Your task to perform on an android device: set the stopwatch Image 0: 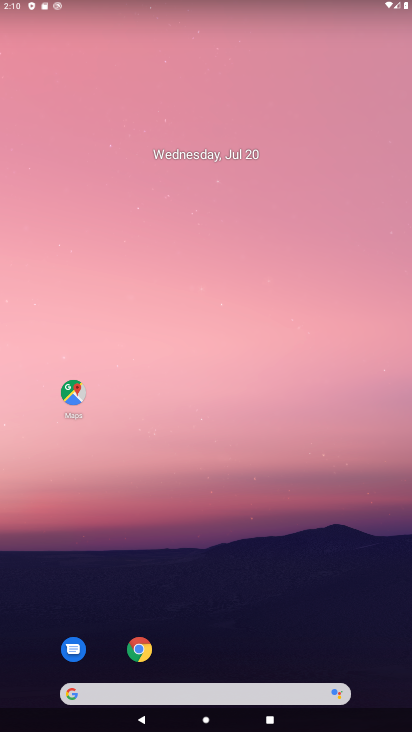
Step 0: drag from (260, 545) to (225, 189)
Your task to perform on an android device: set the stopwatch Image 1: 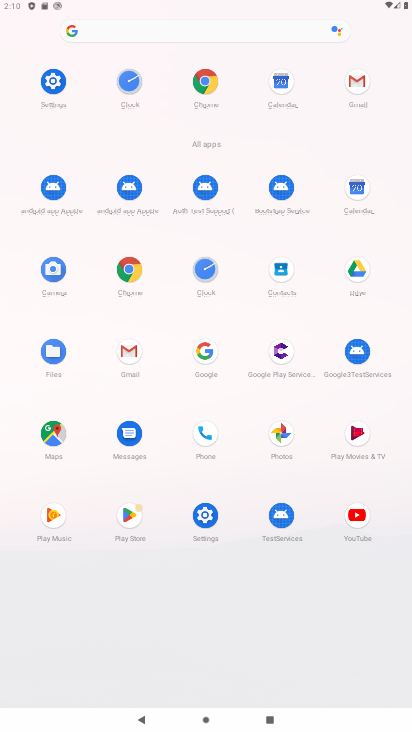
Step 1: click (205, 273)
Your task to perform on an android device: set the stopwatch Image 2: 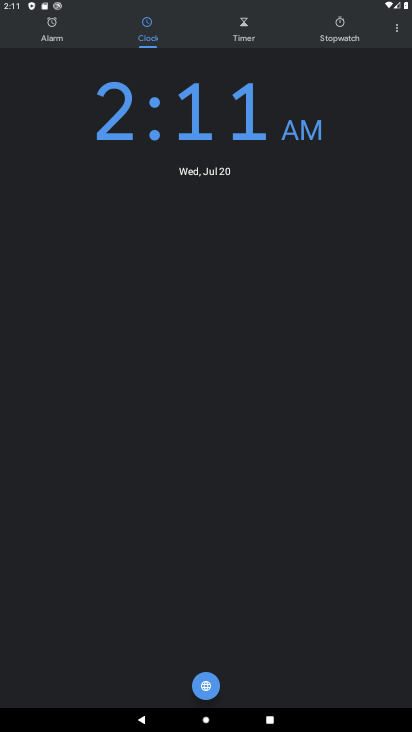
Step 2: click (344, 21)
Your task to perform on an android device: set the stopwatch Image 3: 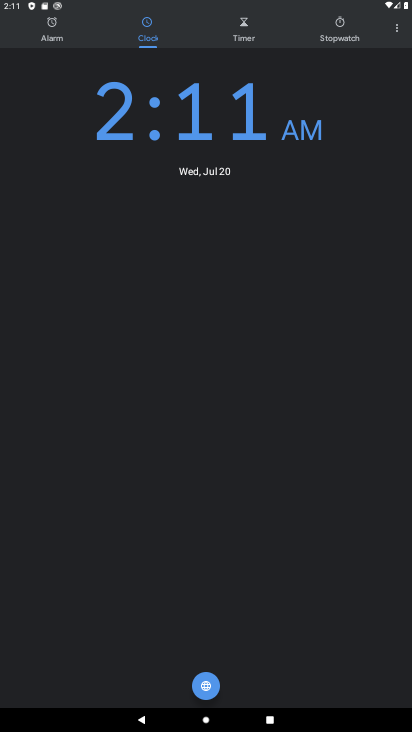
Step 3: click (342, 22)
Your task to perform on an android device: set the stopwatch Image 4: 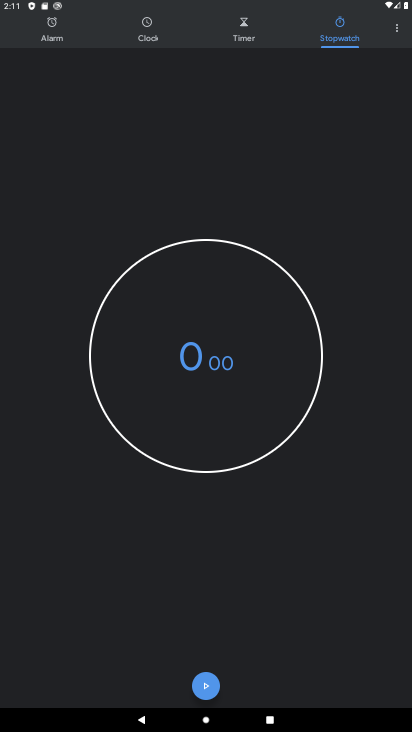
Step 4: click (219, 338)
Your task to perform on an android device: set the stopwatch Image 5: 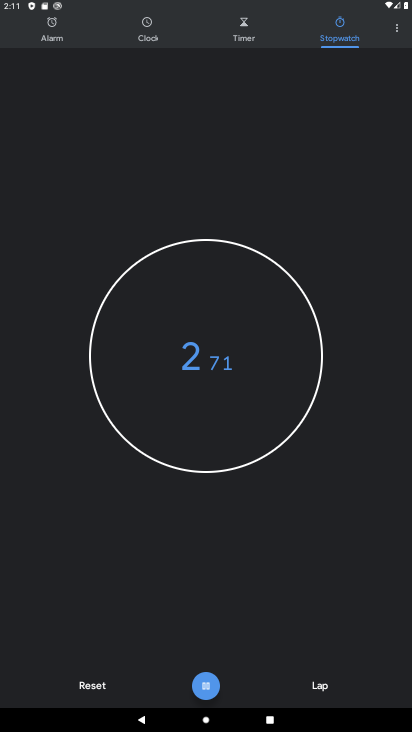
Step 5: click (186, 347)
Your task to perform on an android device: set the stopwatch Image 6: 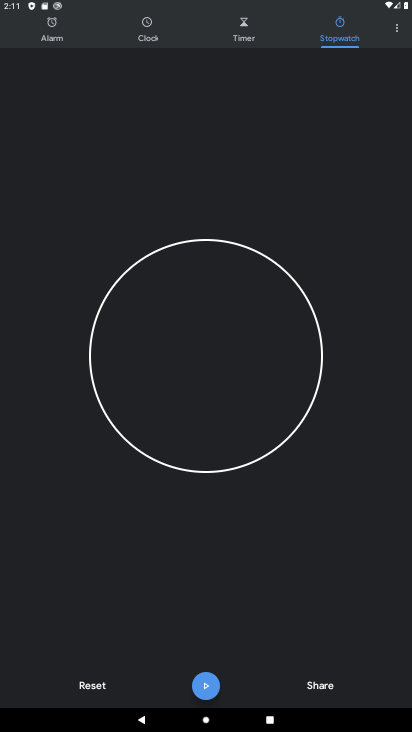
Step 6: task complete